Your task to perform on an android device: Open settings Image 0: 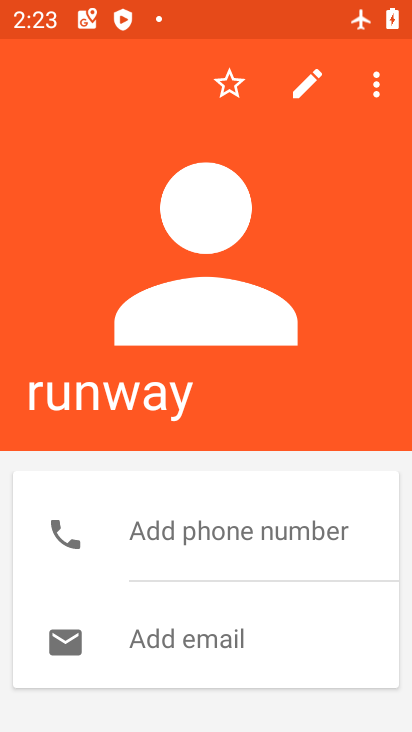
Step 0: press home button
Your task to perform on an android device: Open settings Image 1: 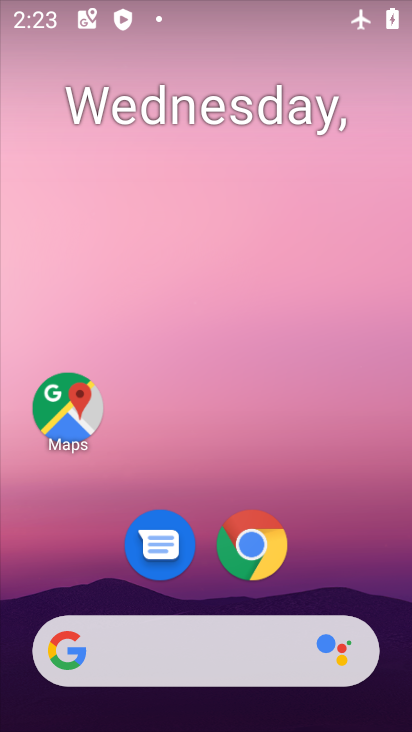
Step 1: drag from (287, 505) to (304, 198)
Your task to perform on an android device: Open settings Image 2: 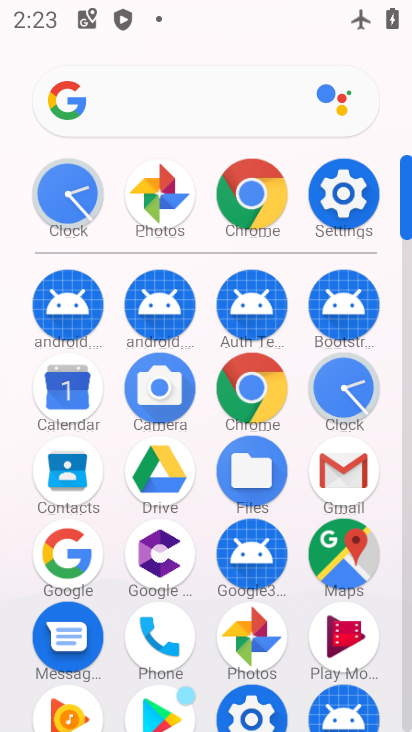
Step 2: click (337, 199)
Your task to perform on an android device: Open settings Image 3: 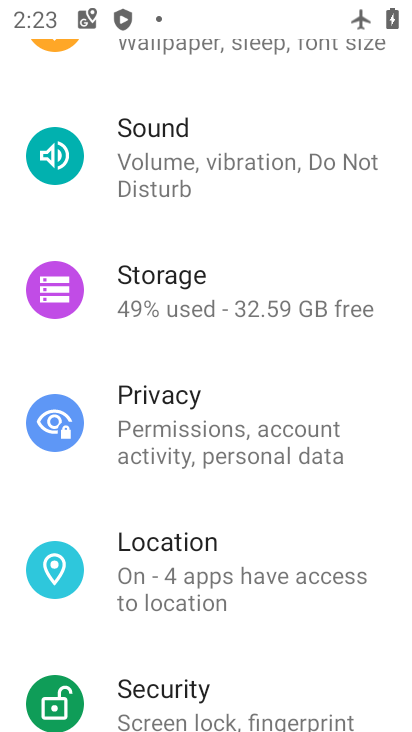
Step 3: task complete